Your task to perform on an android device: change notifications settings Image 0: 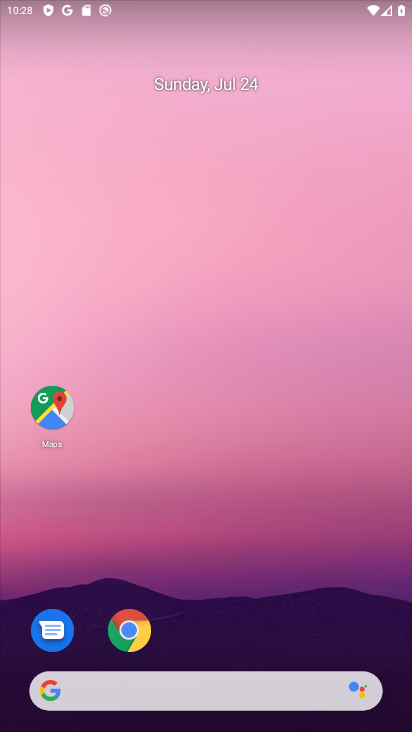
Step 0: press home button
Your task to perform on an android device: change notifications settings Image 1: 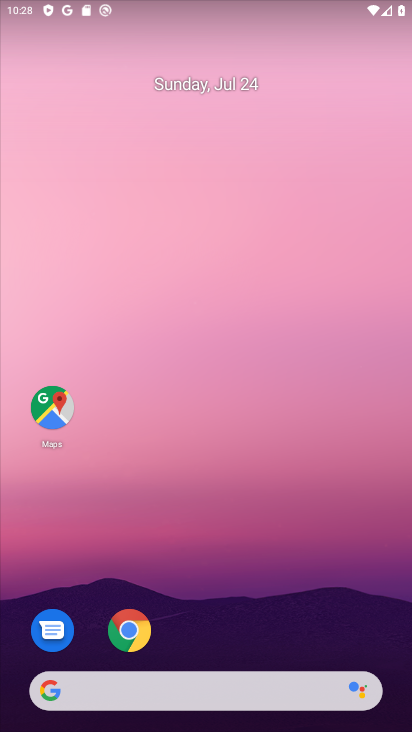
Step 1: drag from (223, 539) to (183, 98)
Your task to perform on an android device: change notifications settings Image 2: 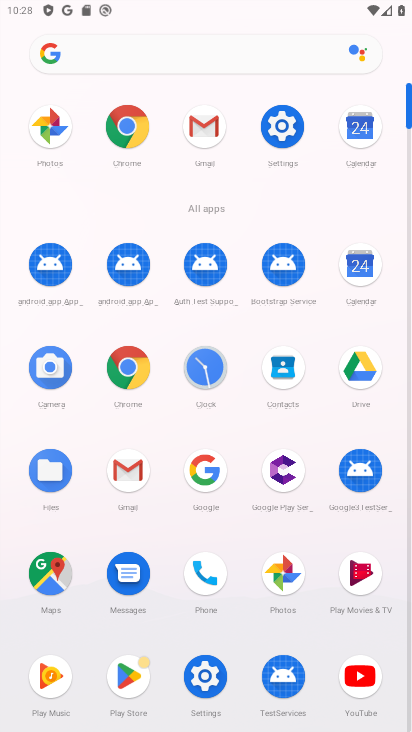
Step 2: click (279, 164)
Your task to perform on an android device: change notifications settings Image 3: 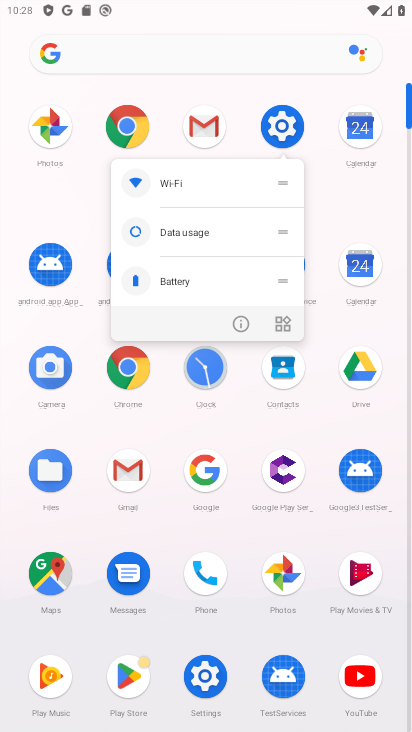
Step 3: click (272, 135)
Your task to perform on an android device: change notifications settings Image 4: 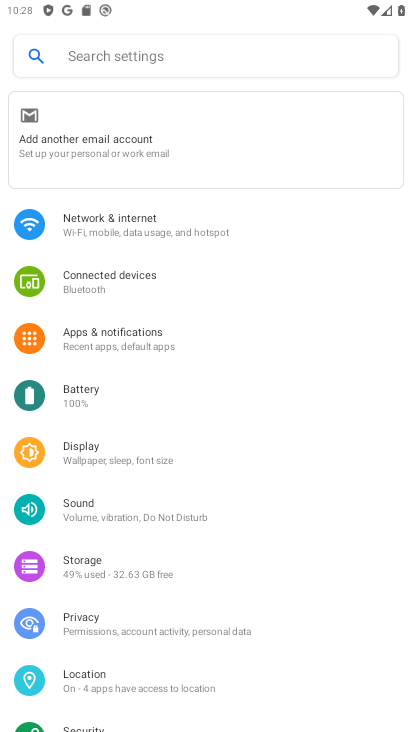
Step 4: click (110, 322)
Your task to perform on an android device: change notifications settings Image 5: 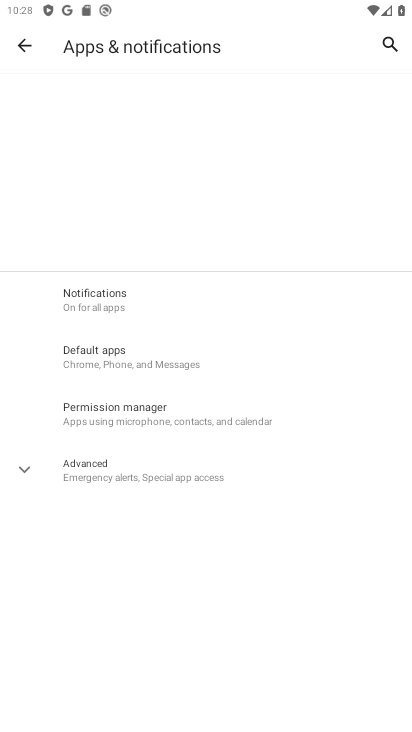
Step 5: click (88, 295)
Your task to perform on an android device: change notifications settings Image 6: 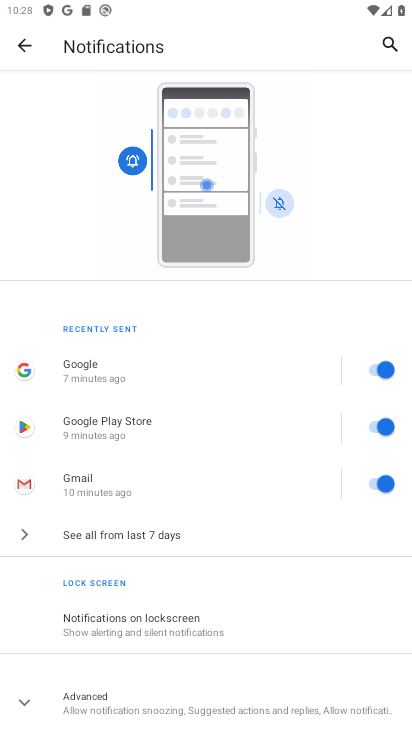
Step 6: click (275, 201)
Your task to perform on an android device: change notifications settings Image 7: 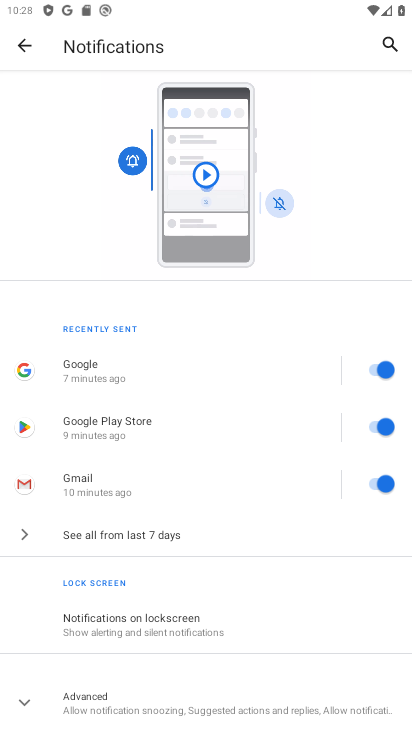
Step 7: click (283, 205)
Your task to perform on an android device: change notifications settings Image 8: 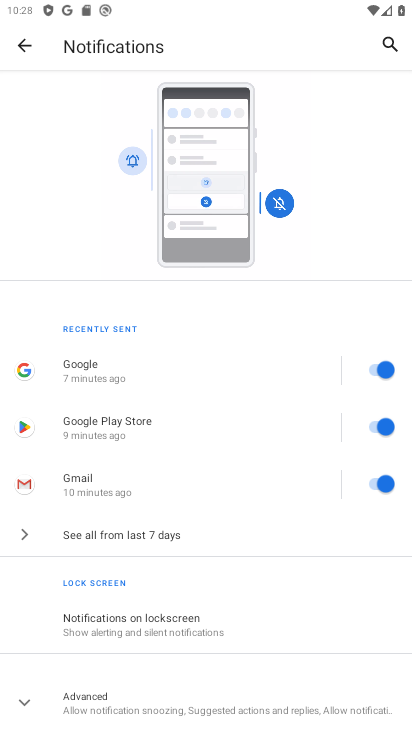
Step 8: click (272, 195)
Your task to perform on an android device: change notifications settings Image 9: 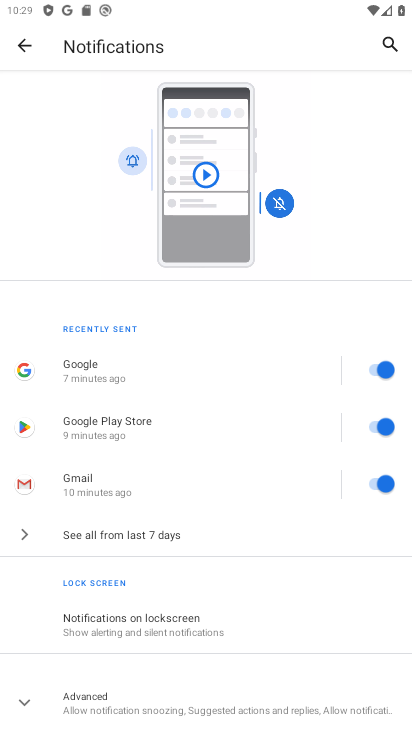
Step 9: task complete